Your task to perform on an android device: change keyboard looks Image 0: 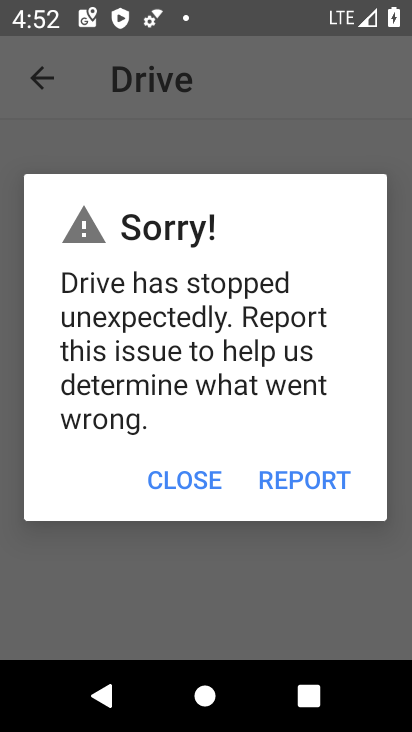
Step 0: click (170, 482)
Your task to perform on an android device: change keyboard looks Image 1: 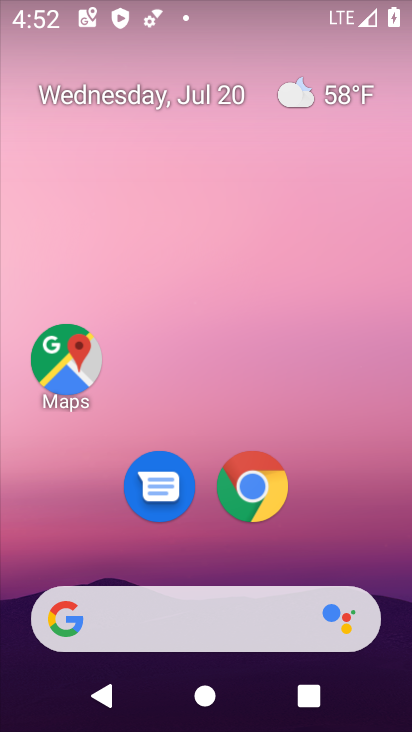
Step 1: drag from (169, 508) to (242, 6)
Your task to perform on an android device: change keyboard looks Image 2: 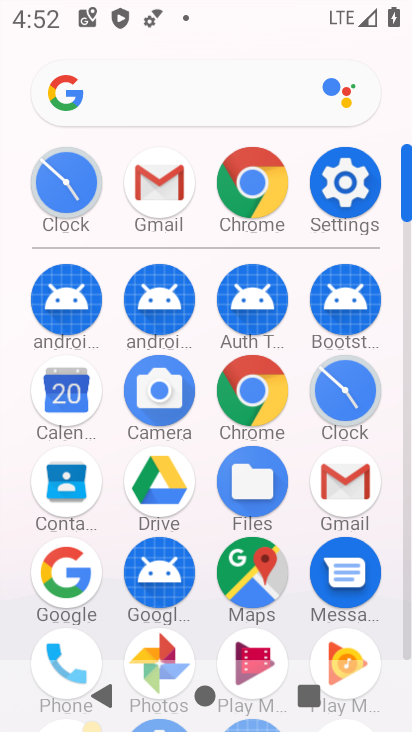
Step 2: click (357, 236)
Your task to perform on an android device: change keyboard looks Image 3: 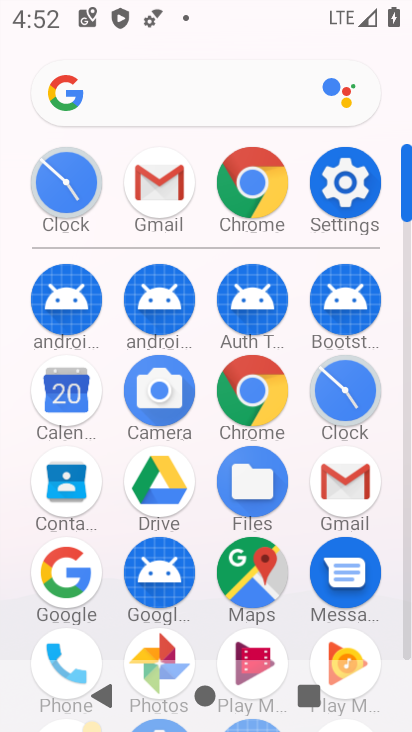
Step 3: click (356, 208)
Your task to perform on an android device: change keyboard looks Image 4: 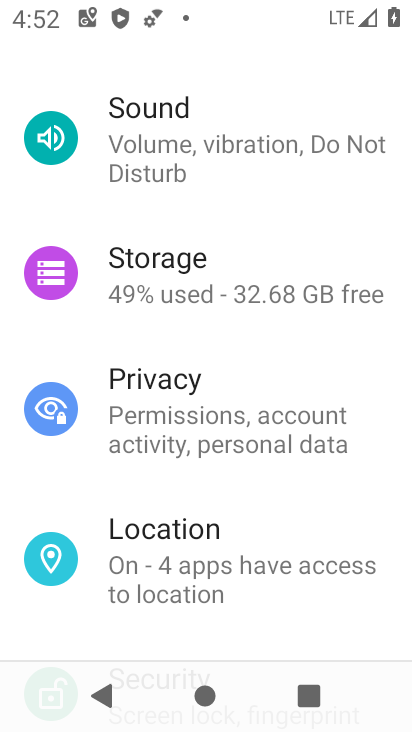
Step 4: drag from (158, 560) to (245, 10)
Your task to perform on an android device: change keyboard looks Image 5: 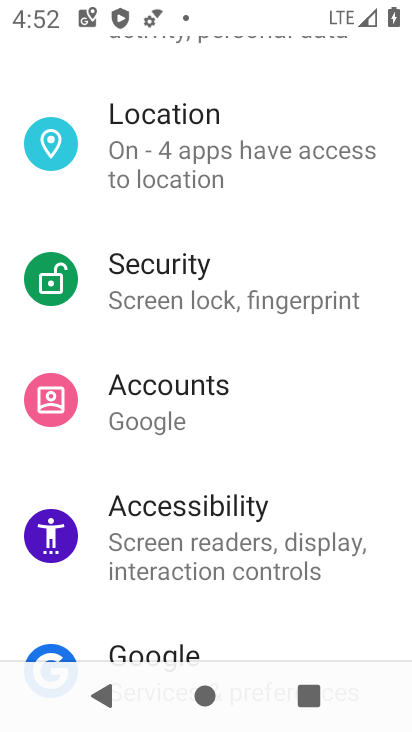
Step 5: drag from (211, 552) to (319, 9)
Your task to perform on an android device: change keyboard looks Image 6: 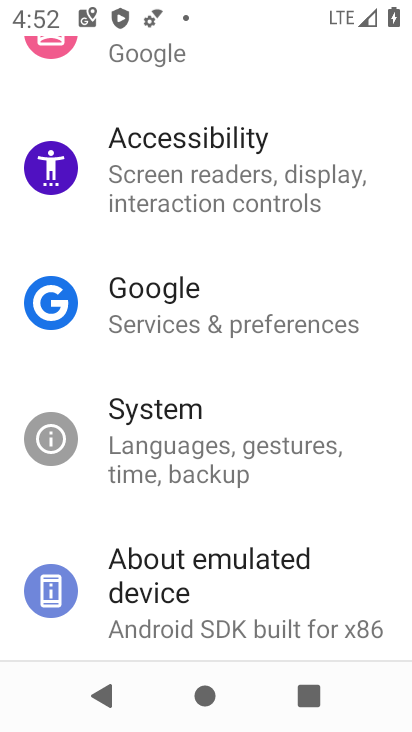
Step 6: click (158, 450)
Your task to perform on an android device: change keyboard looks Image 7: 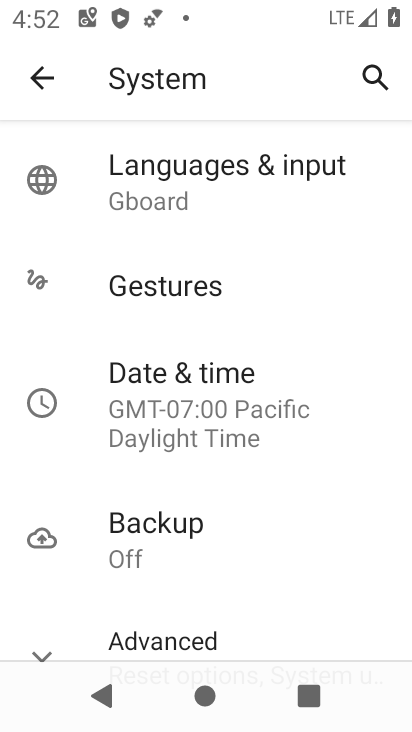
Step 7: click (174, 181)
Your task to perform on an android device: change keyboard looks Image 8: 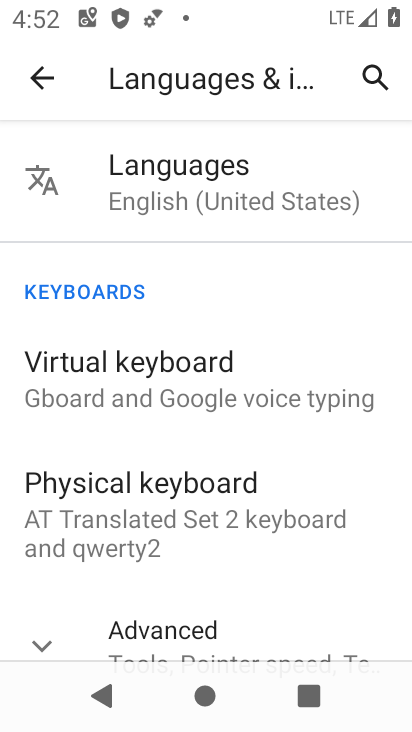
Step 8: click (137, 392)
Your task to perform on an android device: change keyboard looks Image 9: 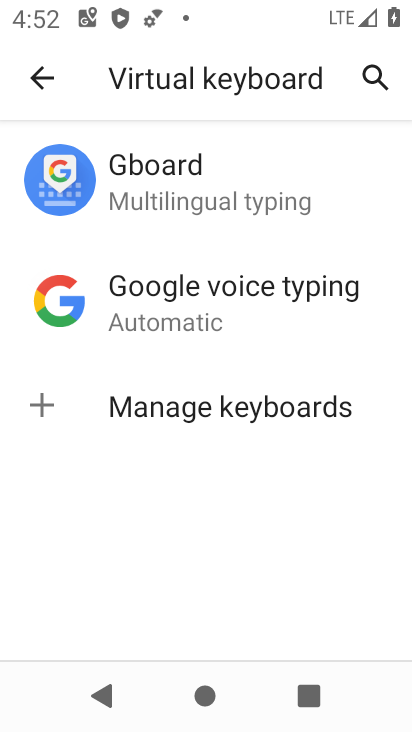
Step 9: click (146, 164)
Your task to perform on an android device: change keyboard looks Image 10: 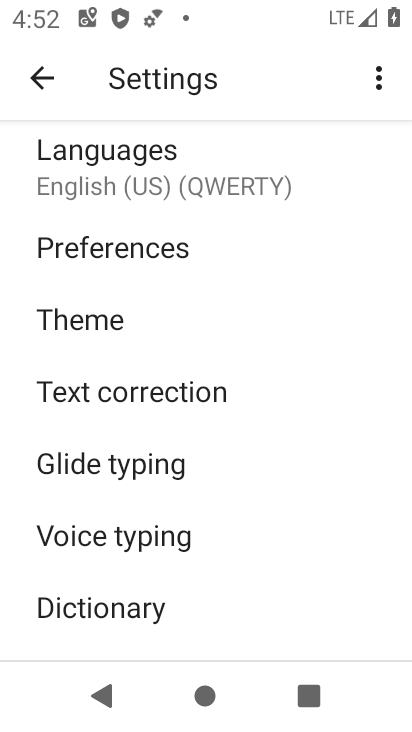
Step 10: click (91, 324)
Your task to perform on an android device: change keyboard looks Image 11: 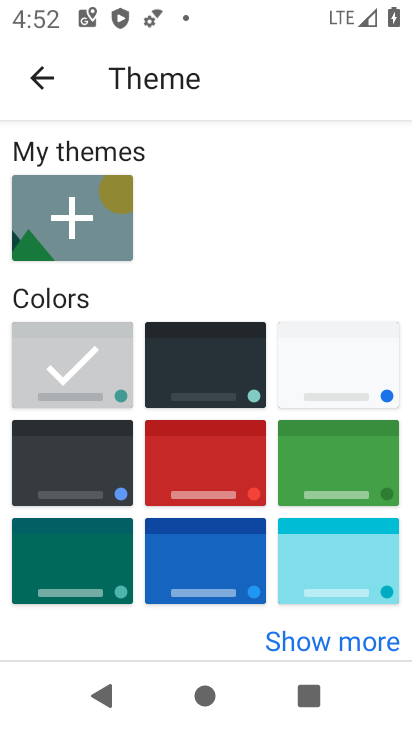
Step 11: click (196, 472)
Your task to perform on an android device: change keyboard looks Image 12: 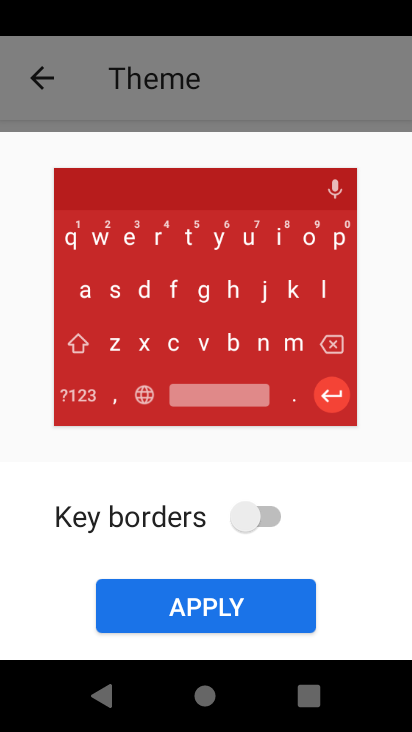
Step 12: click (206, 601)
Your task to perform on an android device: change keyboard looks Image 13: 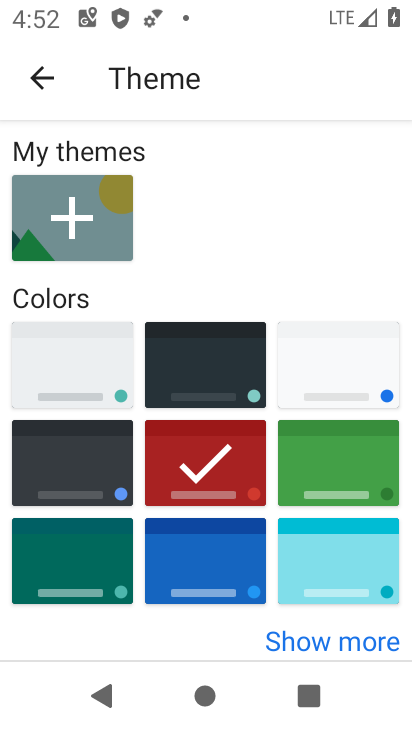
Step 13: task complete